Your task to perform on an android device: open sync settings in chrome Image 0: 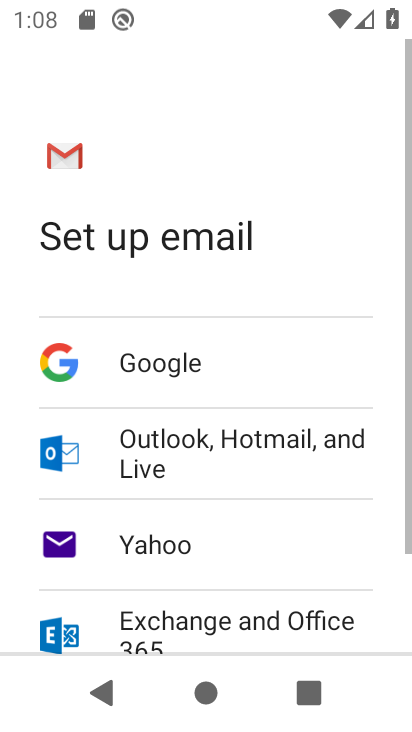
Step 0: press home button
Your task to perform on an android device: open sync settings in chrome Image 1: 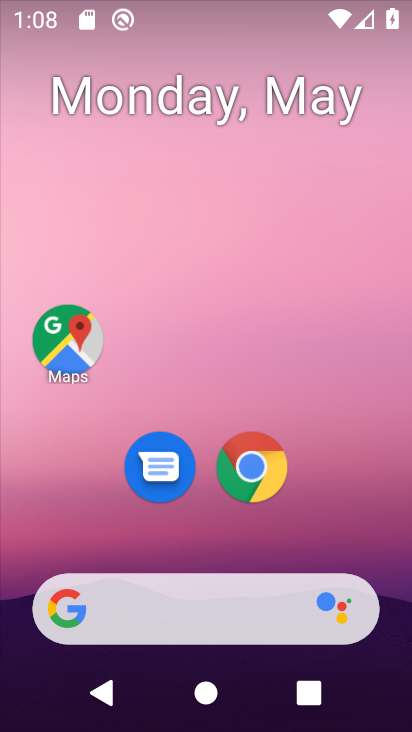
Step 1: click (243, 475)
Your task to perform on an android device: open sync settings in chrome Image 2: 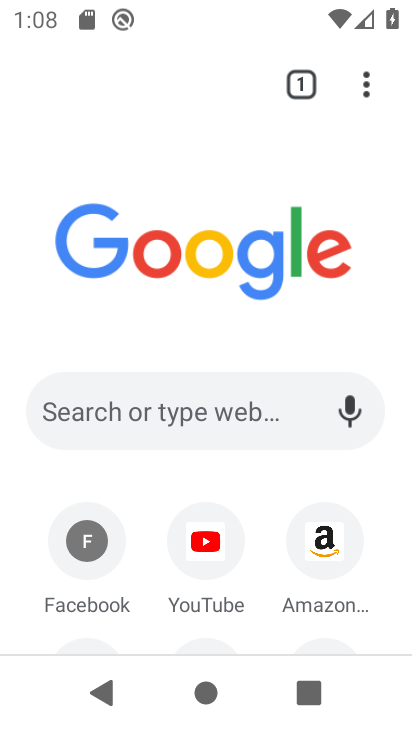
Step 2: click (364, 79)
Your task to perform on an android device: open sync settings in chrome Image 3: 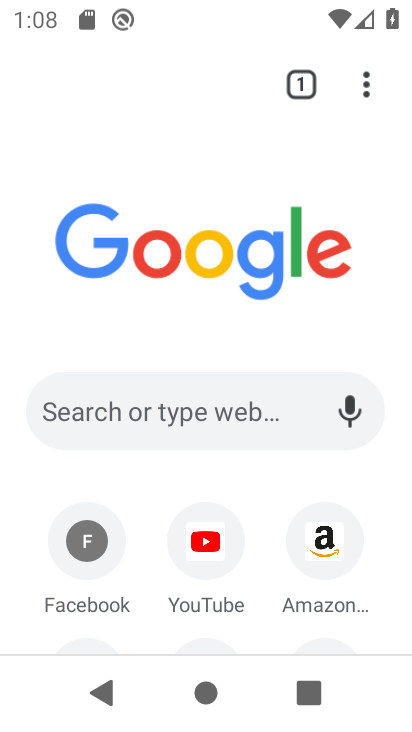
Step 3: drag from (362, 82) to (119, 534)
Your task to perform on an android device: open sync settings in chrome Image 4: 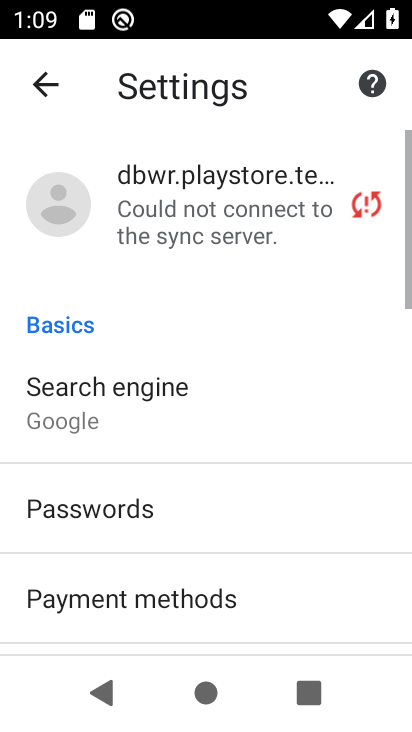
Step 4: click (121, 244)
Your task to perform on an android device: open sync settings in chrome Image 5: 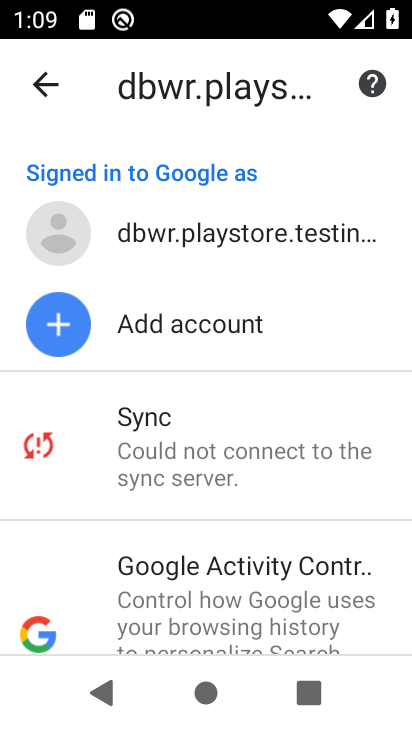
Step 5: click (151, 455)
Your task to perform on an android device: open sync settings in chrome Image 6: 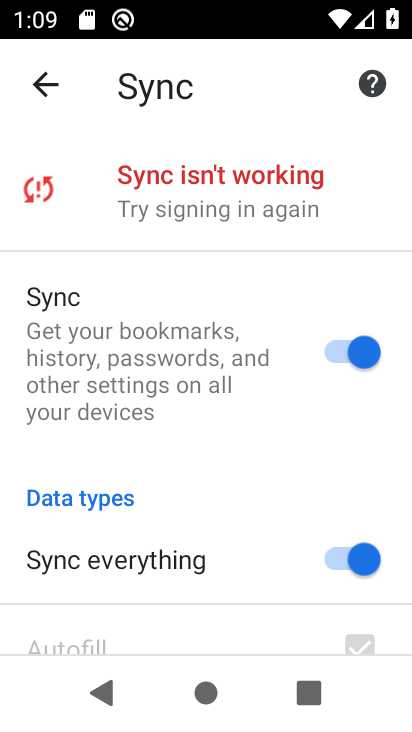
Step 6: task complete